Your task to perform on an android device: manage bookmarks in the chrome app Image 0: 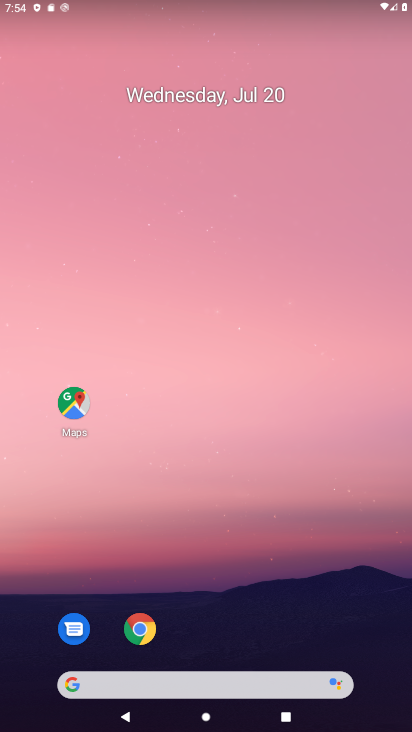
Step 0: drag from (274, 560) to (256, 148)
Your task to perform on an android device: manage bookmarks in the chrome app Image 1: 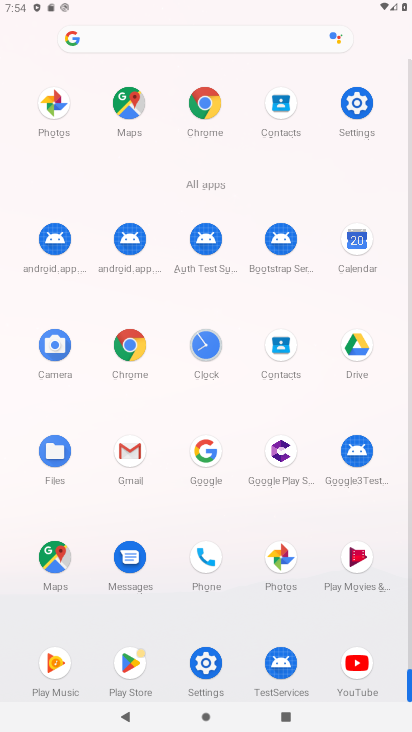
Step 1: click (209, 104)
Your task to perform on an android device: manage bookmarks in the chrome app Image 2: 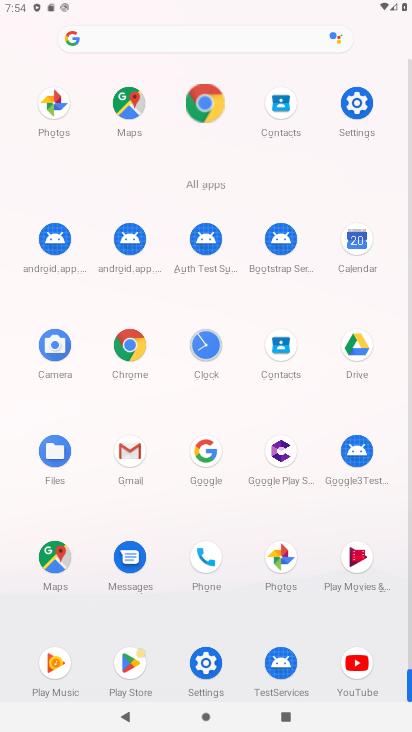
Step 2: click (205, 104)
Your task to perform on an android device: manage bookmarks in the chrome app Image 3: 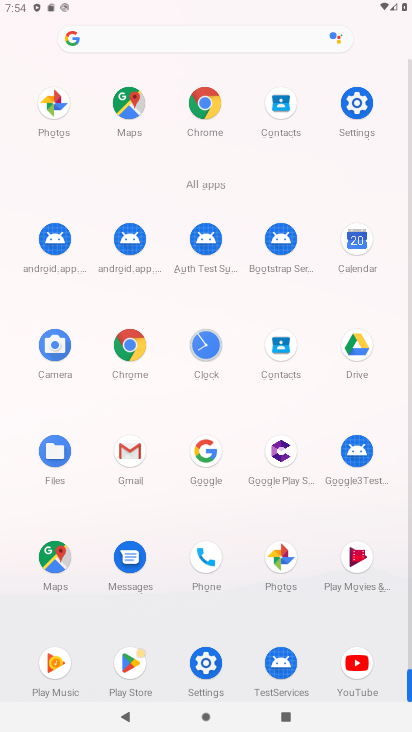
Step 3: click (204, 103)
Your task to perform on an android device: manage bookmarks in the chrome app Image 4: 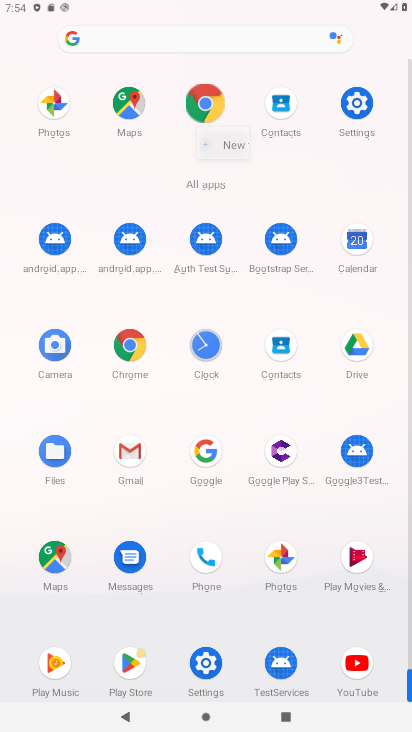
Step 4: click (206, 106)
Your task to perform on an android device: manage bookmarks in the chrome app Image 5: 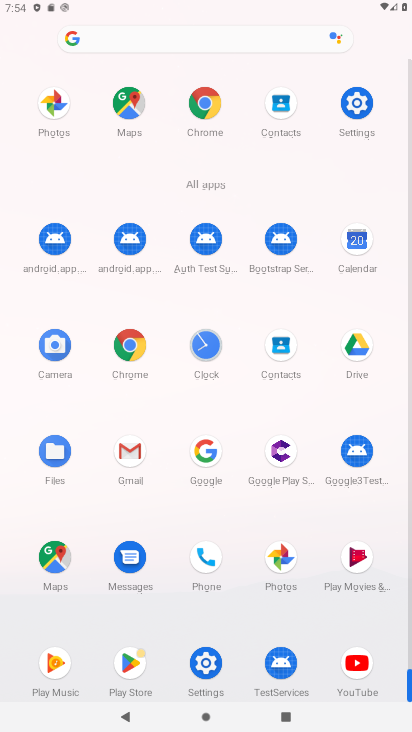
Step 5: click (207, 105)
Your task to perform on an android device: manage bookmarks in the chrome app Image 6: 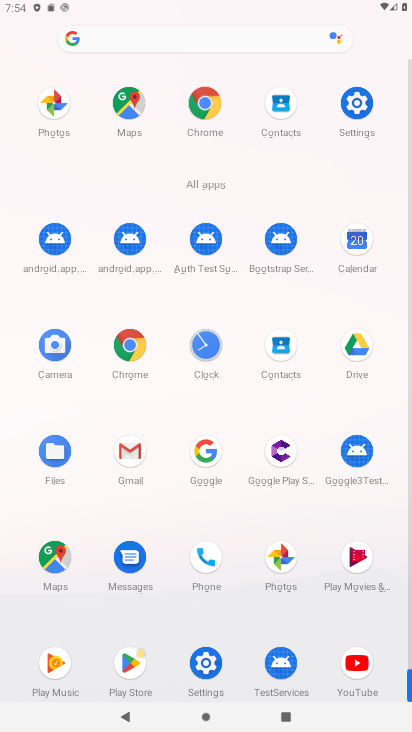
Step 6: click (207, 105)
Your task to perform on an android device: manage bookmarks in the chrome app Image 7: 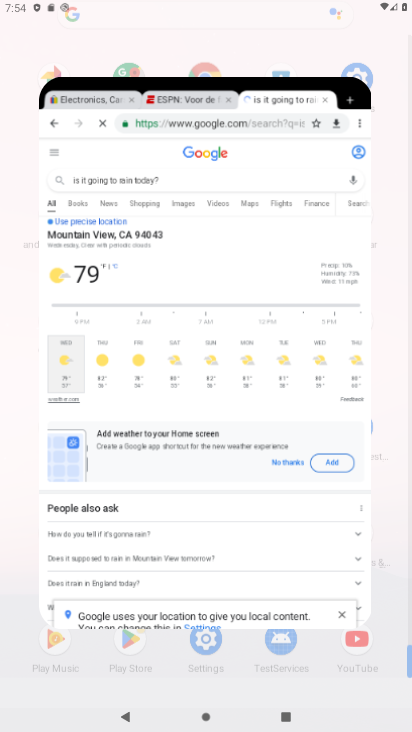
Step 7: click (207, 106)
Your task to perform on an android device: manage bookmarks in the chrome app Image 8: 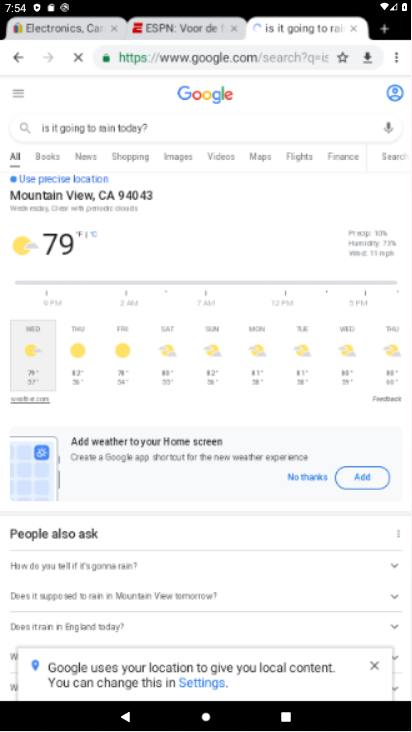
Step 8: click (207, 106)
Your task to perform on an android device: manage bookmarks in the chrome app Image 9: 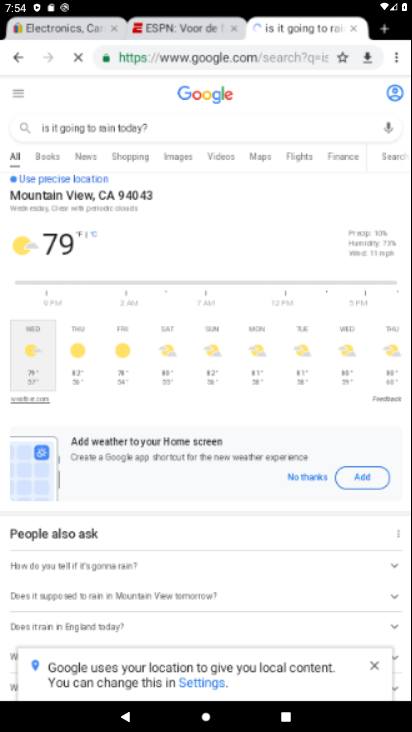
Step 9: click (208, 107)
Your task to perform on an android device: manage bookmarks in the chrome app Image 10: 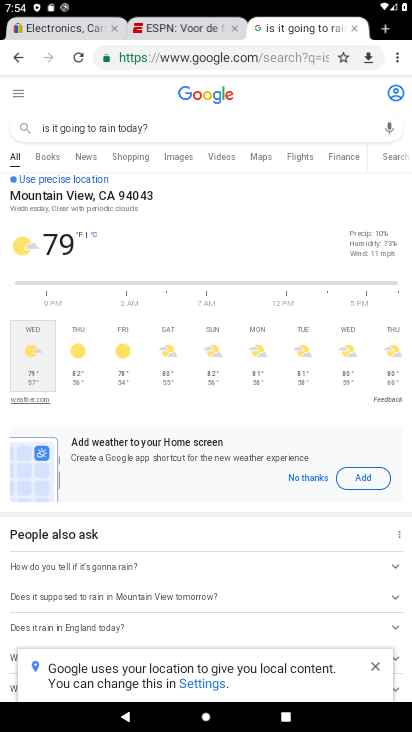
Step 10: click (400, 54)
Your task to perform on an android device: manage bookmarks in the chrome app Image 11: 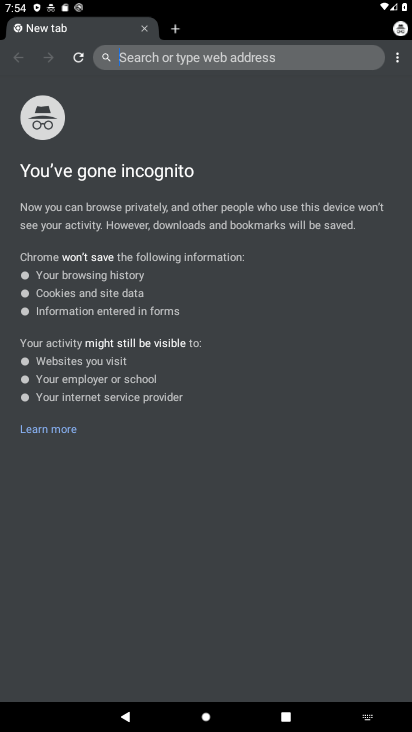
Step 11: drag from (400, 52) to (279, 115)
Your task to perform on an android device: manage bookmarks in the chrome app Image 12: 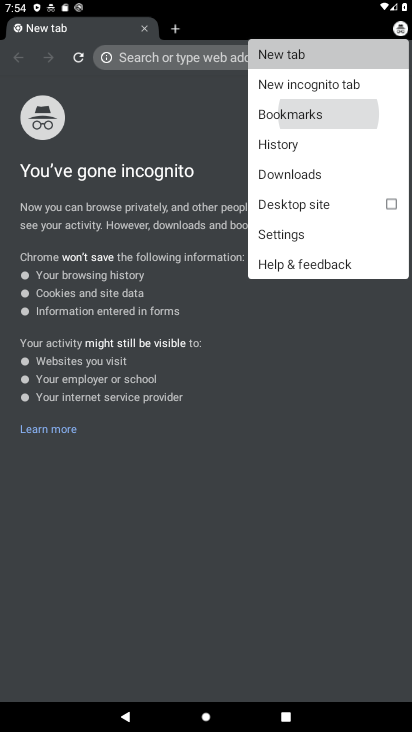
Step 12: click (281, 113)
Your task to perform on an android device: manage bookmarks in the chrome app Image 13: 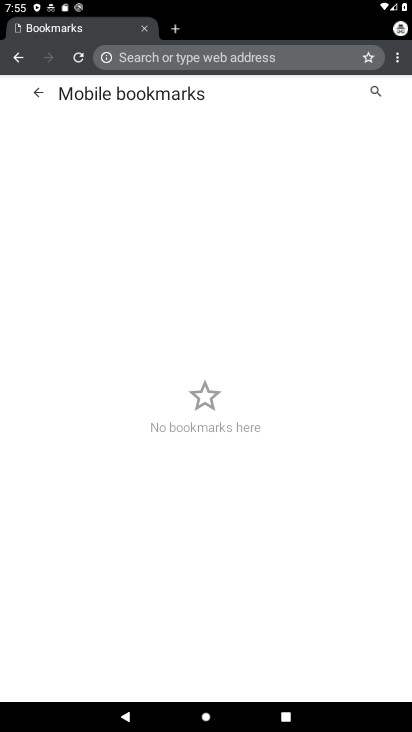
Step 13: task complete